Your task to perform on an android device: Open the map Image 0: 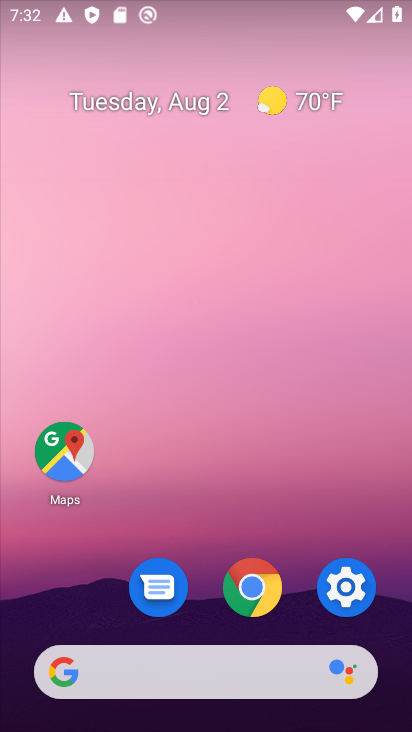
Step 0: click (361, 591)
Your task to perform on an android device: Open the map Image 1: 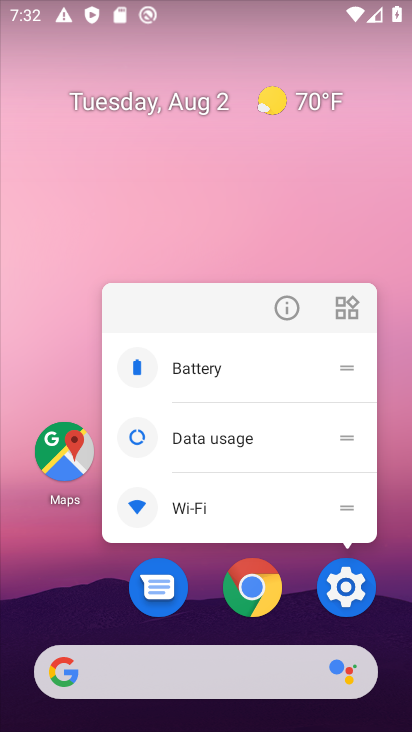
Step 1: click (82, 483)
Your task to perform on an android device: Open the map Image 2: 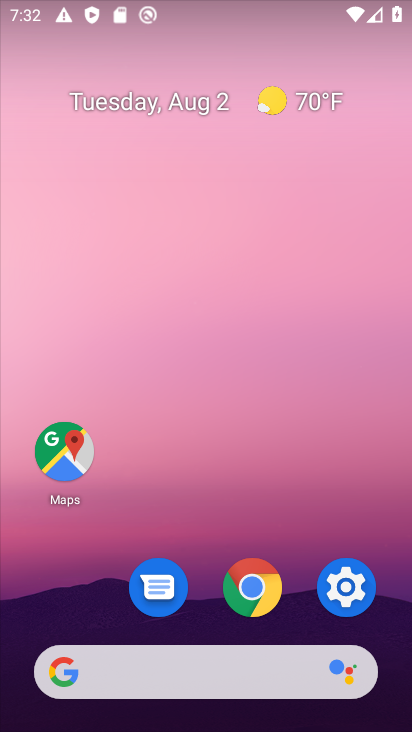
Step 2: click (77, 471)
Your task to perform on an android device: Open the map Image 3: 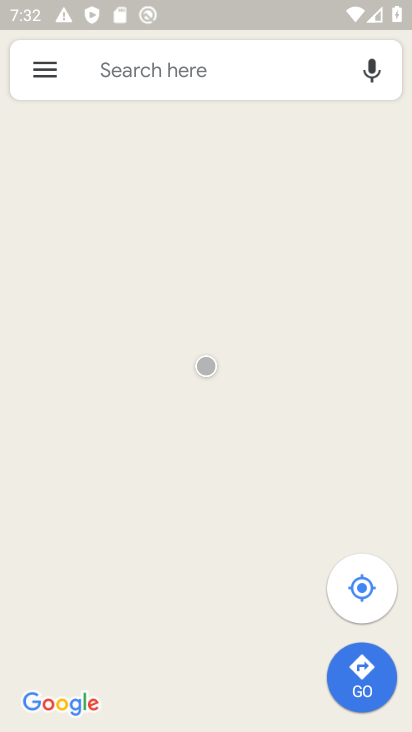
Step 3: click (368, 598)
Your task to perform on an android device: Open the map Image 4: 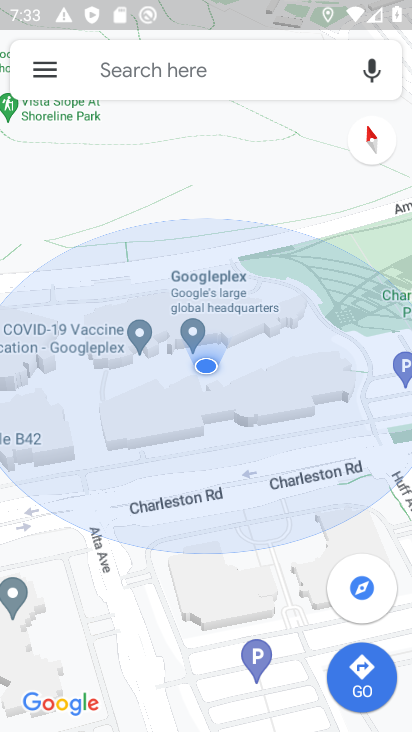
Step 4: task complete